Your task to perform on an android device: When is my next meeting? Image 0: 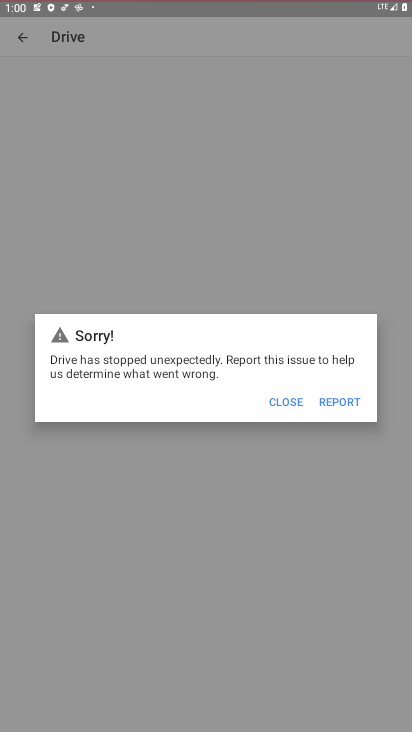
Step 0: click (238, 67)
Your task to perform on an android device: When is my next meeting? Image 1: 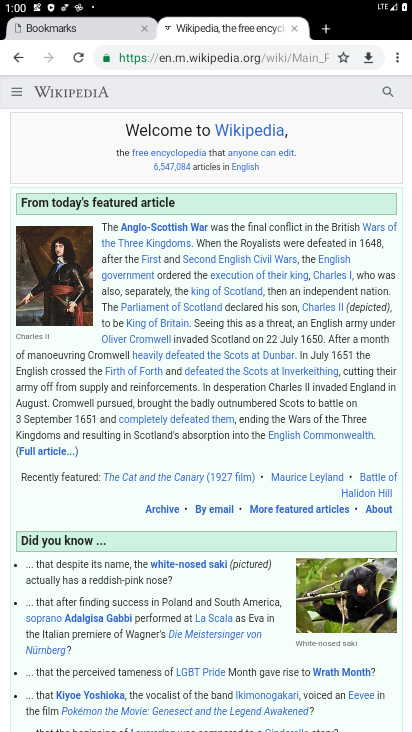
Step 1: press home button
Your task to perform on an android device: When is my next meeting? Image 2: 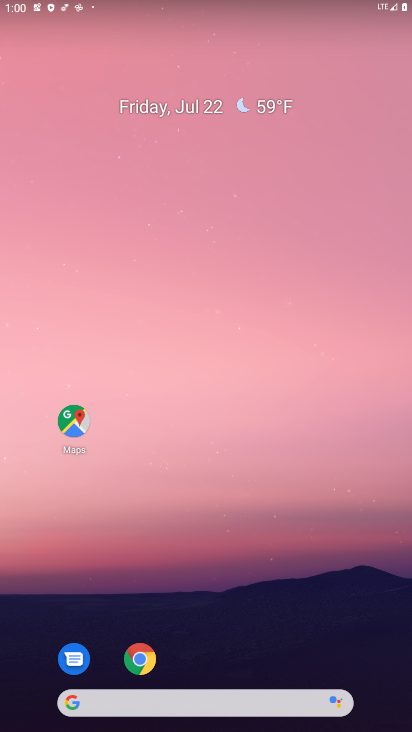
Step 2: drag from (308, 561) to (297, 118)
Your task to perform on an android device: When is my next meeting? Image 3: 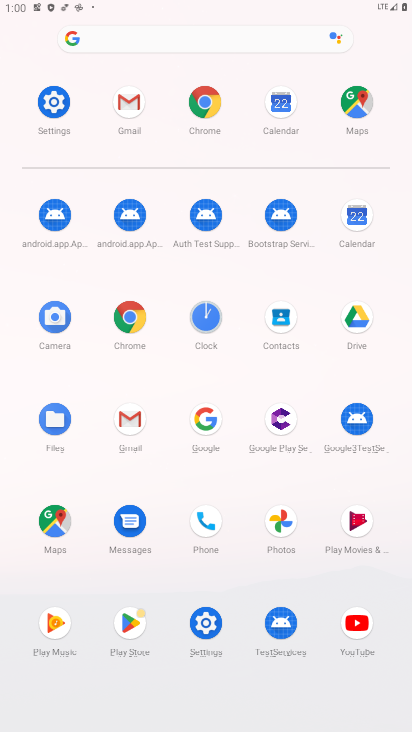
Step 3: click (353, 227)
Your task to perform on an android device: When is my next meeting? Image 4: 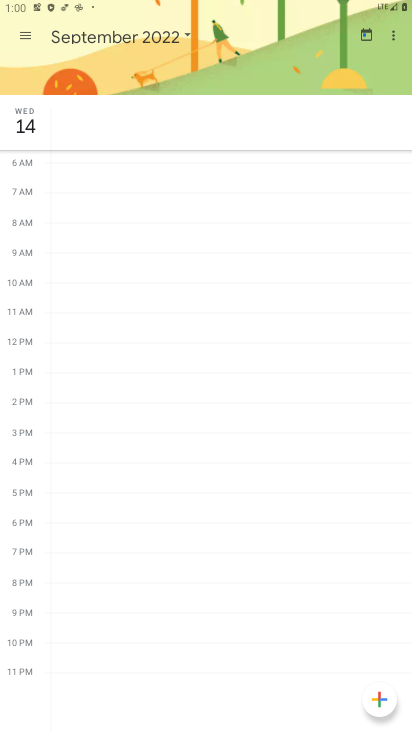
Step 4: click (162, 36)
Your task to perform on an android device: When is my next meeting? Image 5: 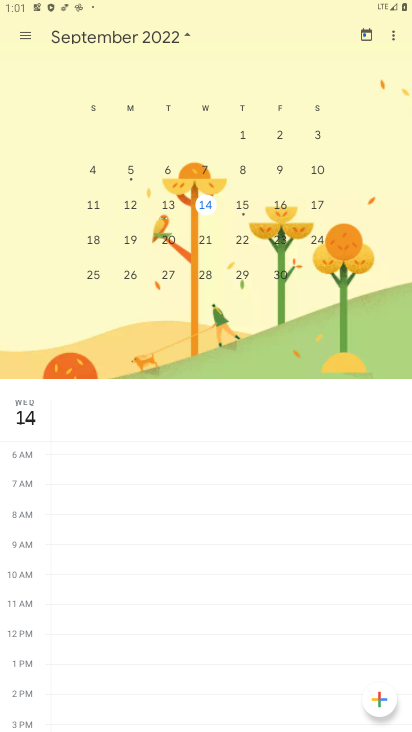
Step 5: task complete